Your task to perform on an android device: change the clock display to digital Image 0: 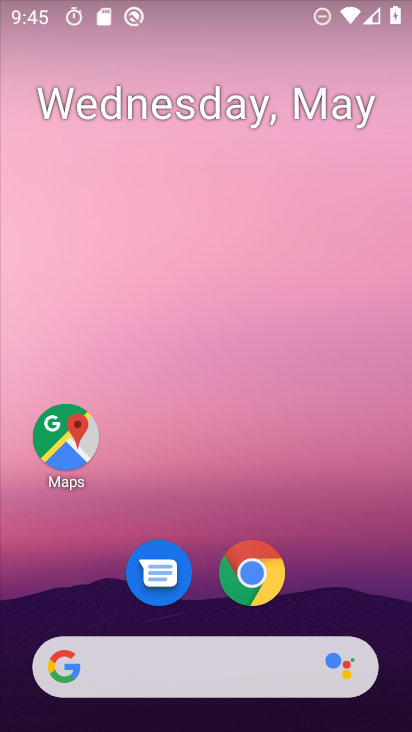
Step 0: click (383, 325)
Your task to perform on an android device: change the clock display to digital Image 1: 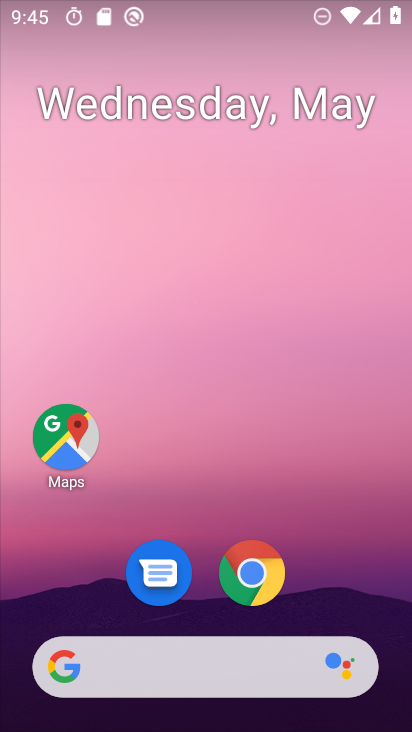
Step 1: drag from (393, 661) to (362, 289)
Your task to perform on an android device: change the clock display to digital Image 2: 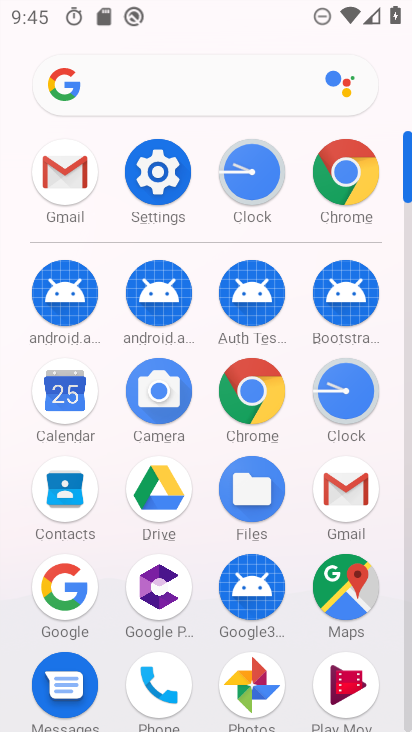
Step 2: click (336, 395)
Your task to perform on an android device: change the clock display to digital Image 3: 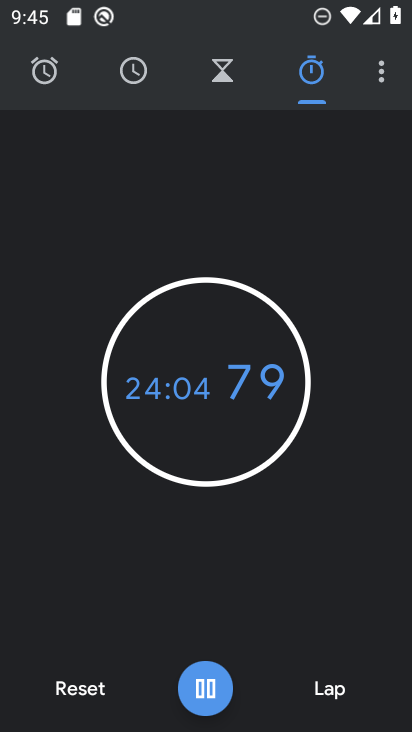
Step 3: click (382, 74)
Your task to perform on an android device: change the clock display to digital Image 4: 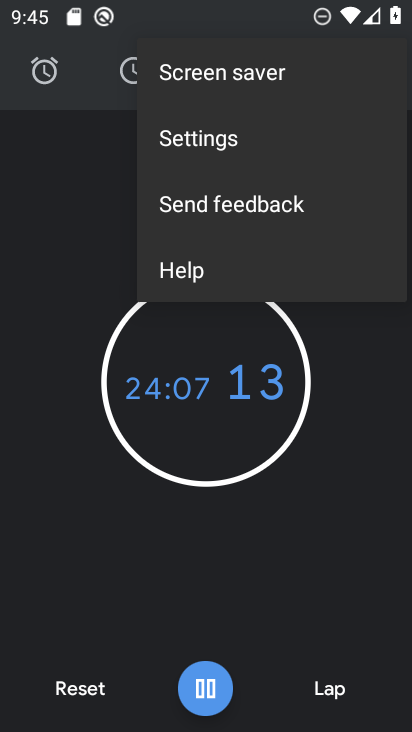
Step 4: click (177, 144)
Your task to perform on an android device: change the clock display to digital Image 5: 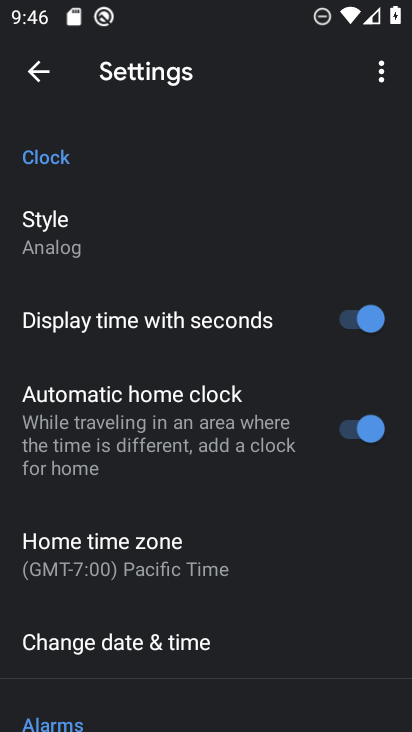
Step 5: click (44, 233)
Your task to perform on an android device: change the clock display to digital Image 6: 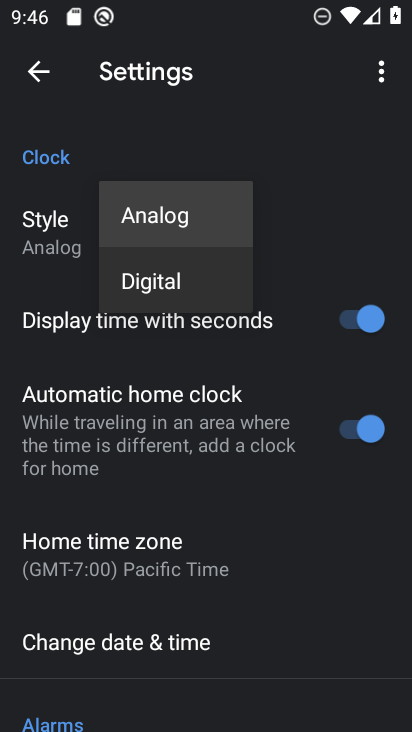
Step 6: click (136, 284)
Your task to perform on an android device: change the clock display to digital Image 7: 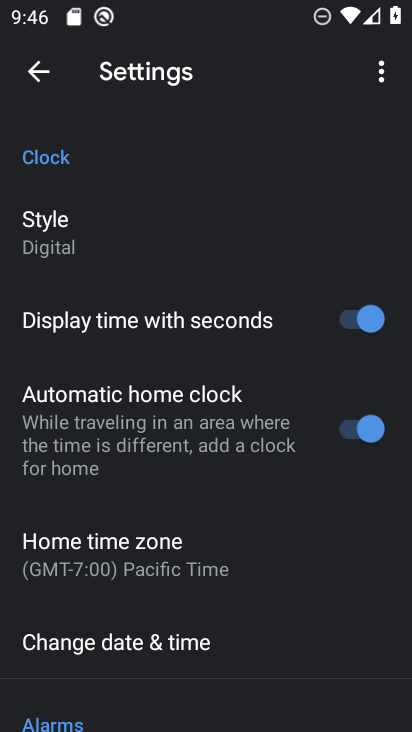
Step 7: task complete